Your task to perform on an android device: Go to calendar. Show me events next week Image 0: 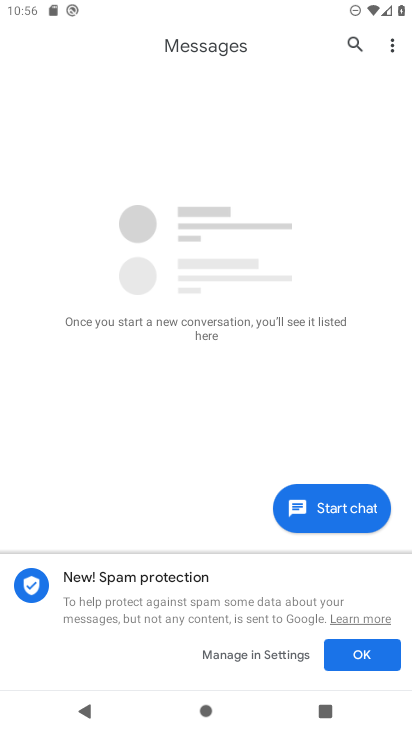
Step 0: press home button
Your task to perform on an android device: Go to calendar. Show me events next week Image 1: 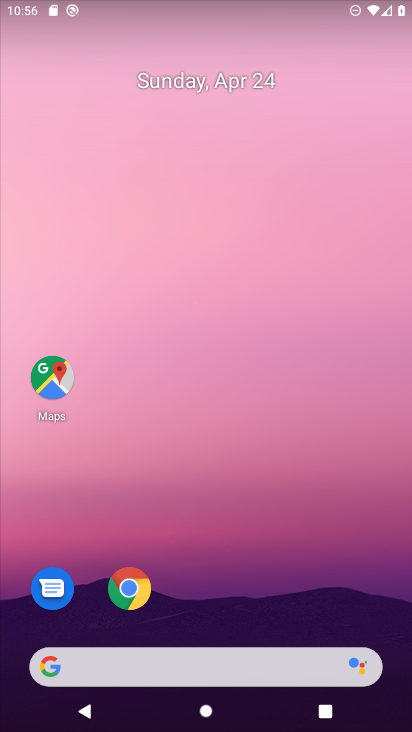
Step 1: drag from (208, 426) to (213, 228)
Your task to perform on an android device: Go to calendar. Show me events next week Image 2: 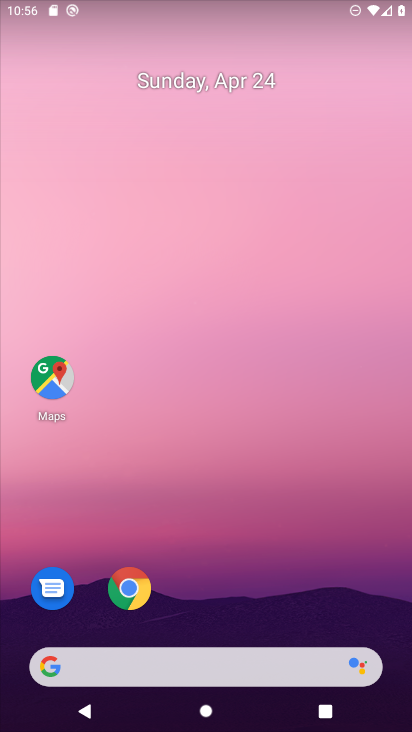
Step 2: drag from (197, 669) to (186, 205)
Your task to perform on an android device: Go to calendar. Show me events next week Image 3: 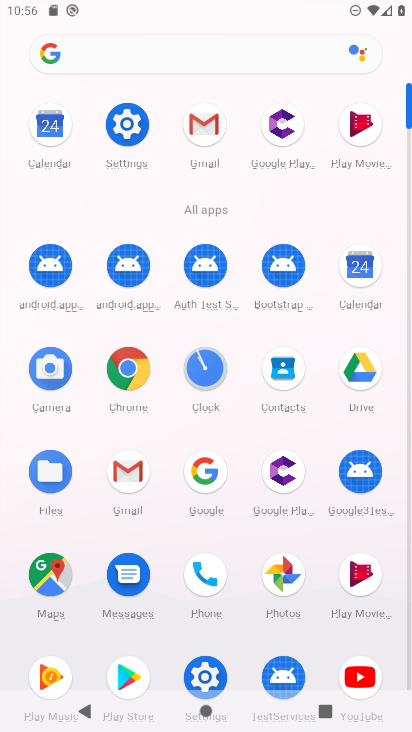
Step 3: click (357, 273)
Your task to perform on an android device: Go to calendar. Show me events next week Image 4: 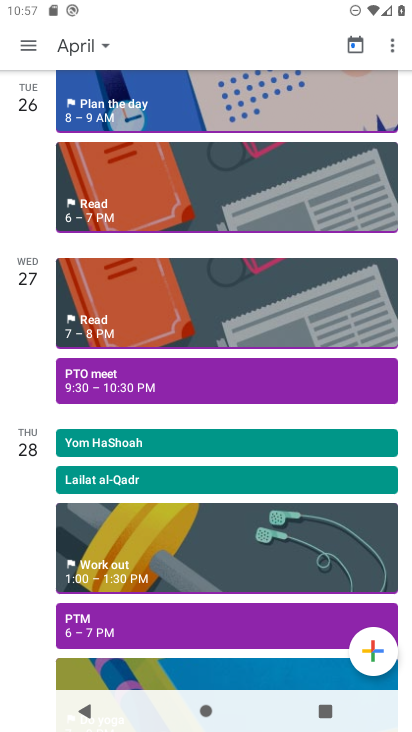
Step 4: click (28, 53)
Your task to perform on an android device: Go to calendar. Show me events next week Image 5: 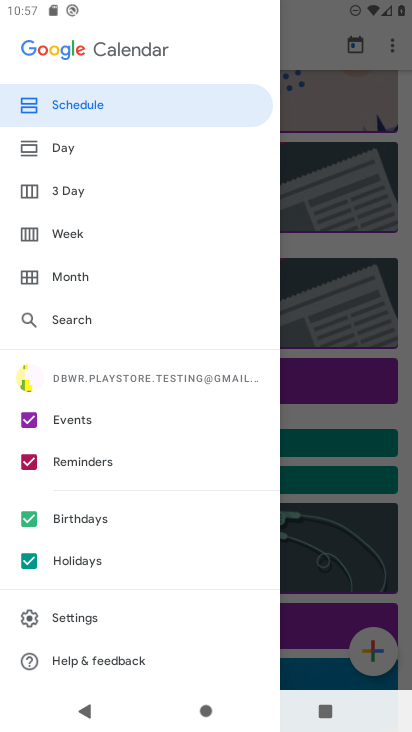
Step 5: click (63, 232)
Your task to perform on an android device: Go to calendar. Show me events next week Image 6: 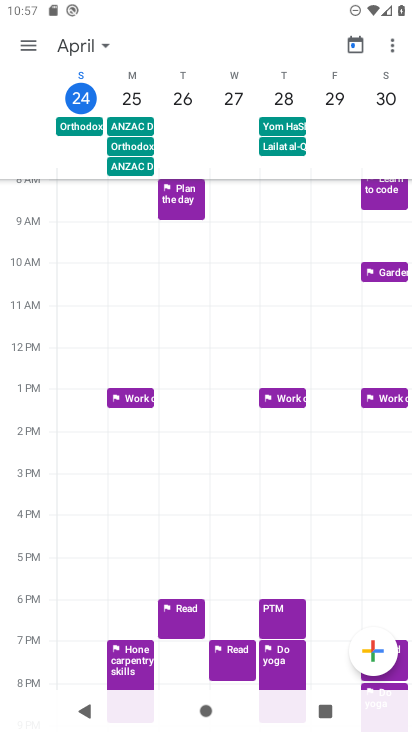
Step 6: task complete